Your task to perform on an android device: turn off notifications settings in the gmail app Image 0: 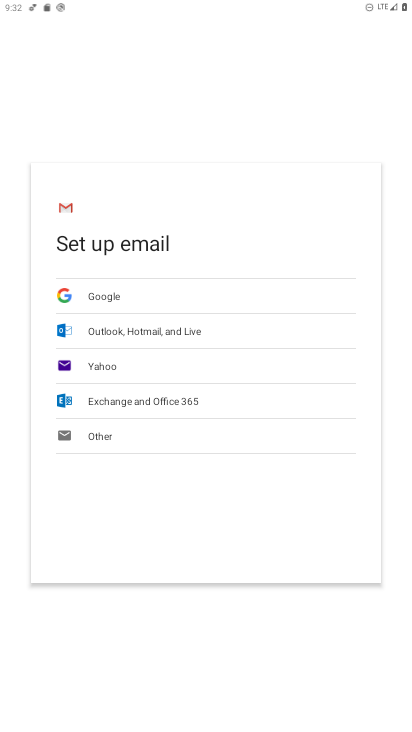
Step 0: press home button
Your task to perform on an android device: turn off notifications settings in the gmail app Image 1: 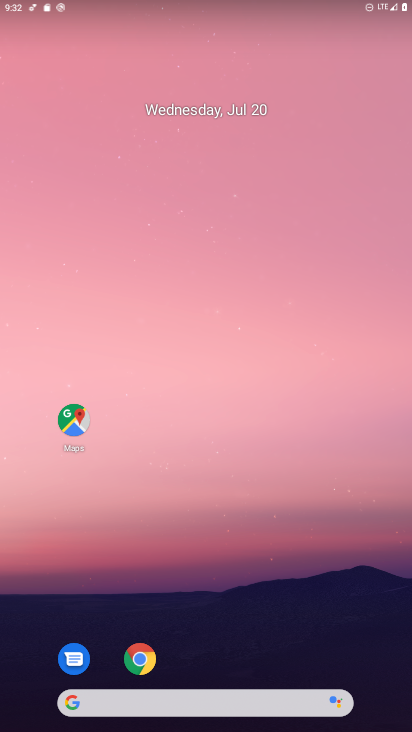
Step 1: drag from (328, 708) to (232, 62)
Your task to perform on an android device: turn off notifications settings in the gmail app Image 2: 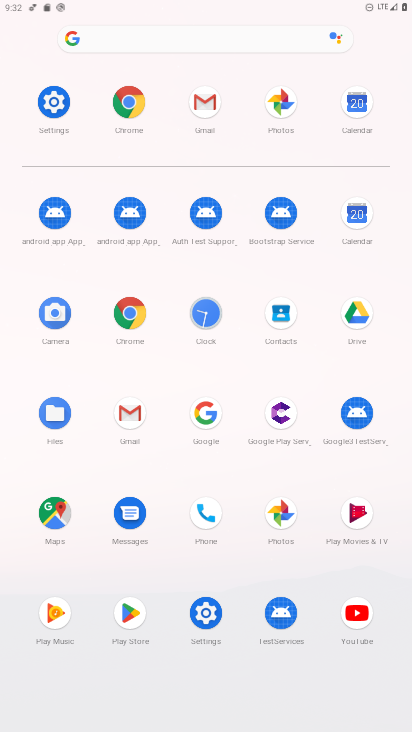
Step 2: click (205, 96)
Your task to perform on an android device: turn off notifications settings in the gmail app Image 3: 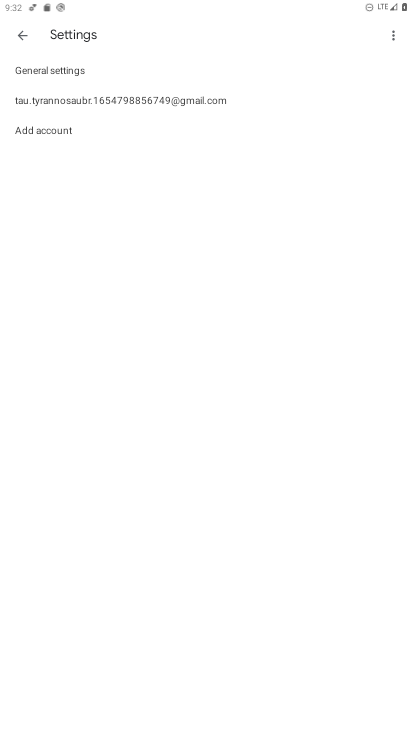
Step 3: click (184, 107)
Your task to perform on an android device: turn off notifications settings in the gmail app Image 4: 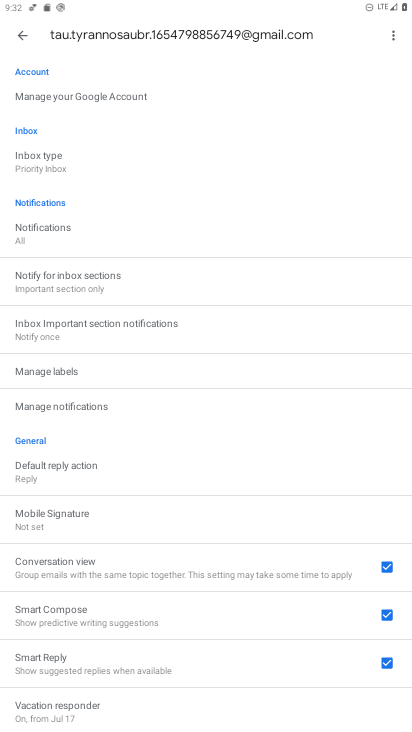
Step 4: click (66, 394)
Your task to perform on an android device: turn off notifications settings in the gmail app Image 5: 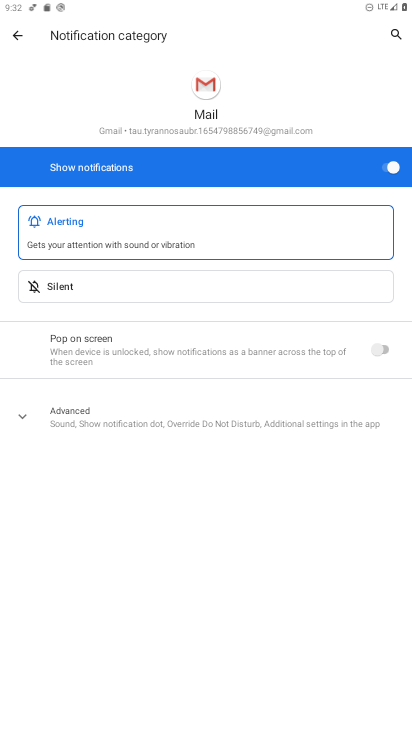
Step 5: click (390, 166)
Your task to perform on an android device: turn off notifications settings in the gmail app Image 6: 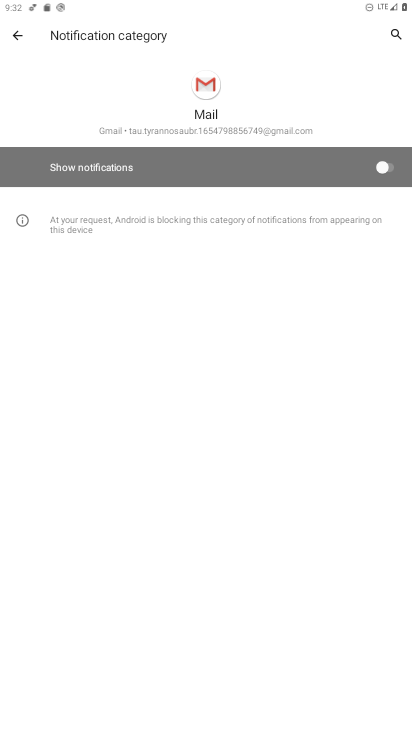
Step 6: task complete